Your task to perform on an android device: Open Maps and search for coffee Image 0: 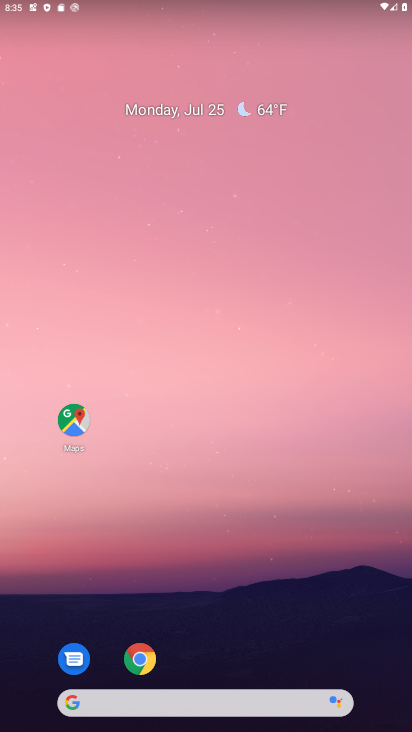
Step 0: press home button
Your task to perform on an android device: Open Maps and search for coffee Image 1: 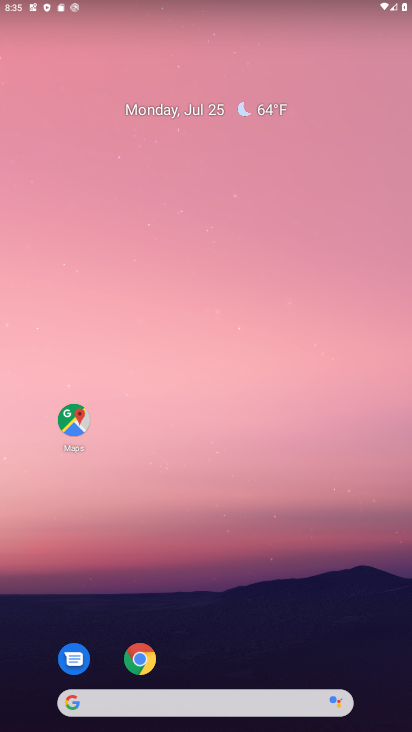
Step 1: drag from (330, 643) to (320, 55)
Your task to perform on an android device: Open Maps and search for coffee Image 2: 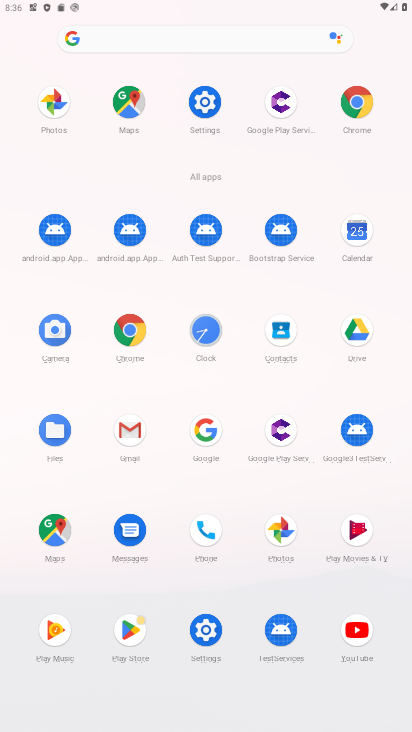
Step 2: click (128, 103)
Your task to perform on an android device: Open Maps and search for coffee Image 3: 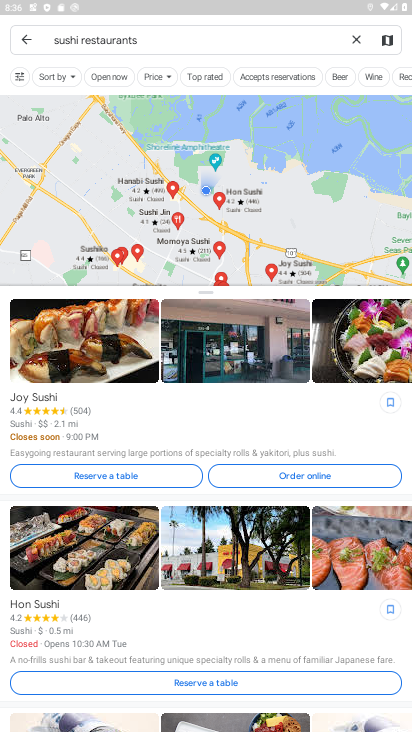
Step 3: press back button
Your task to perform on an android device: Open Maps and search for coffee Image 4: 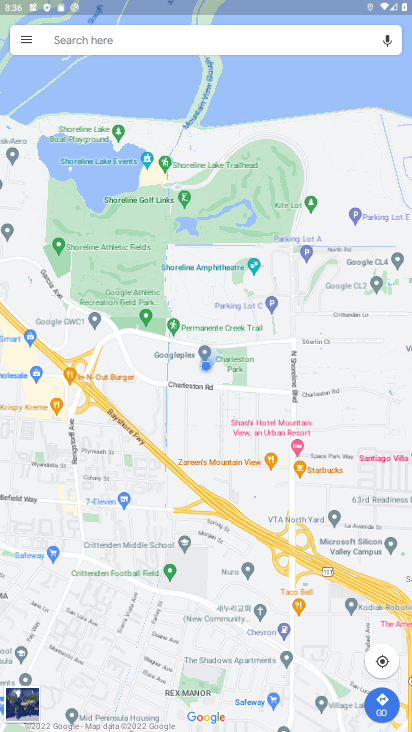
Step 4: click (221, 32)
Your task to perform on an android device: Open Maps and search for coffee Image 5: 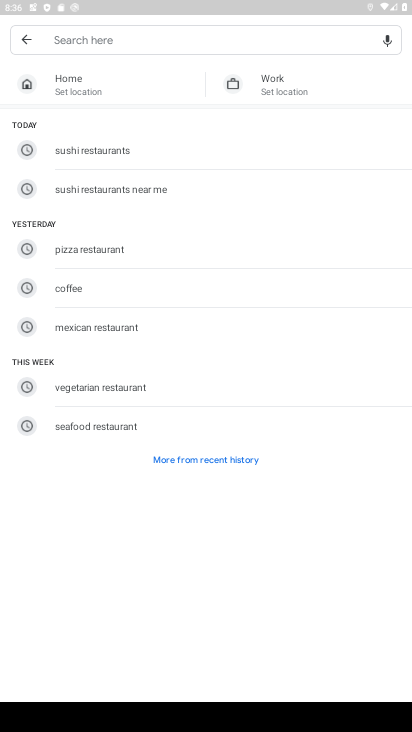
Step 5: type "coffee"
Your task to perform on an android device: Open Maps and search for coffee Image 6: 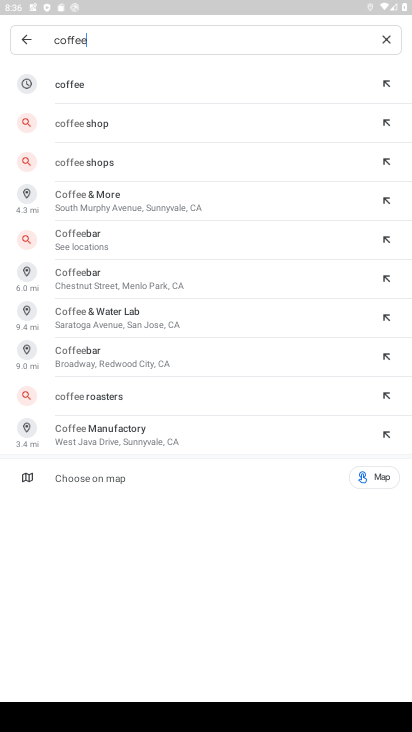
Step 6: click (225, 78)
Your task to perform on an android device: Open Maps and search for coffee Image 7: 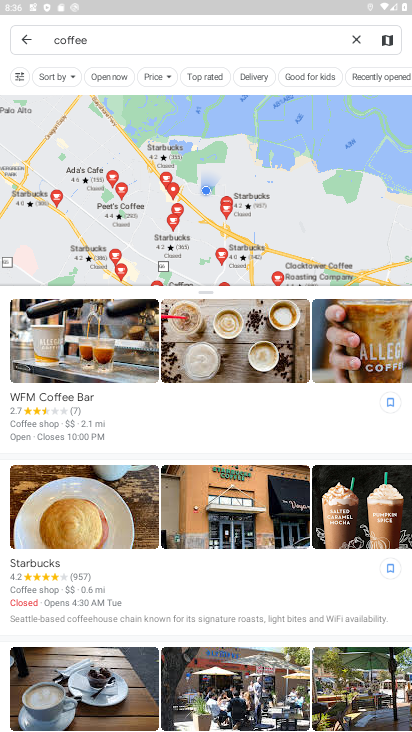
Step 7: task complete